Your task to perform on an android device: View the shopping cart on target.com. Add "dell xps" to the cart on target.com Image 0: 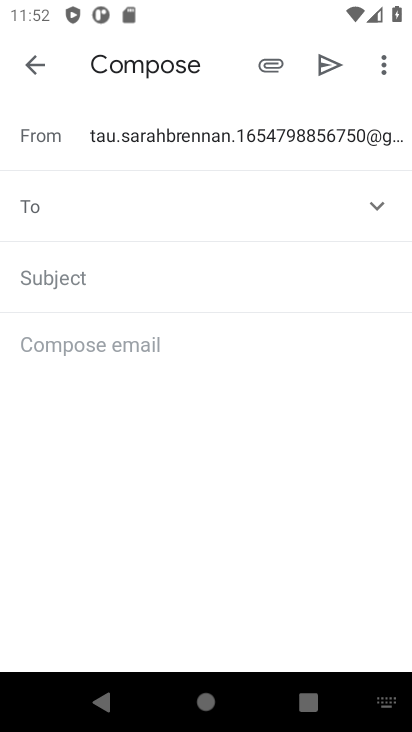
Step 0: press home button
Your task to perform on an android device: View the shopping cart on target.com. Add "dell xps" to the cart on target.com Image 1: 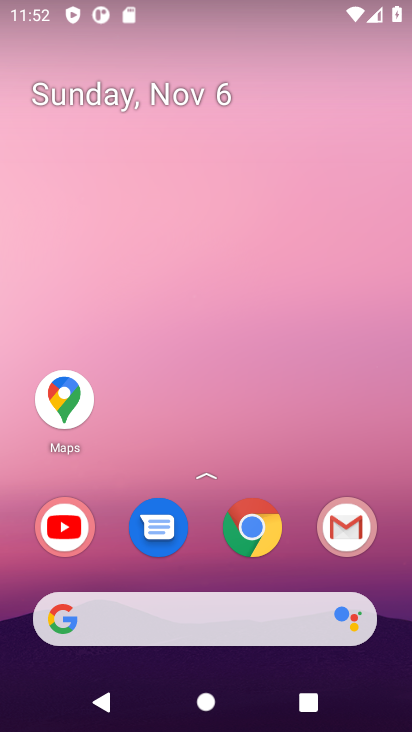
Step 1: drag from (233, 631) to (311, 47)
Your task to perform on an android device: View the shopping cart on target.com. Add "dell xps" to the cart on target.com Image 2: 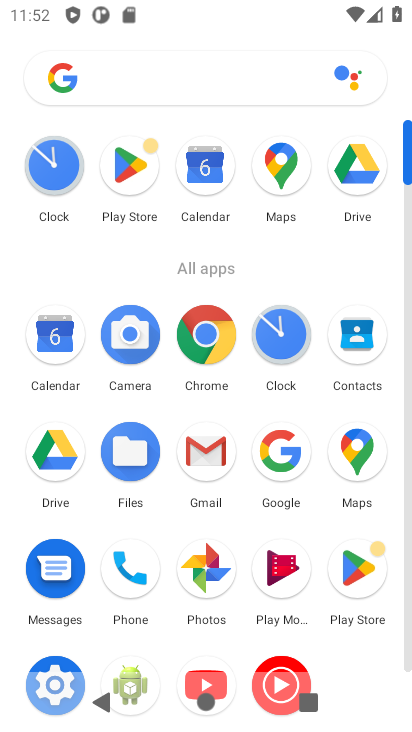
Step 2: click (219, 343)
Your task to perform on an android device: View the shopping cart on target.com. Add "dell xps" to the cart on target.com Image 3: 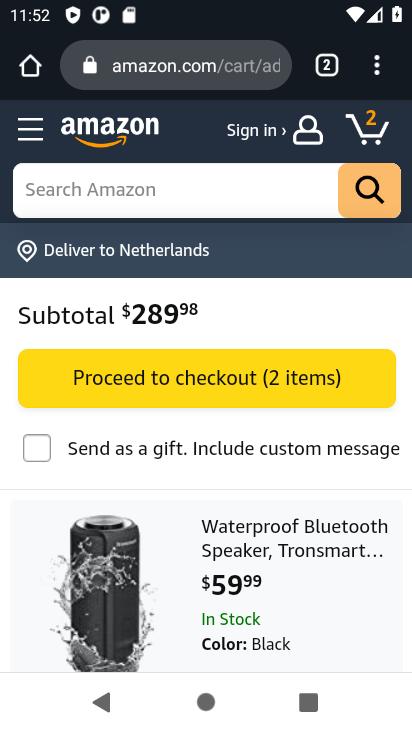
Step 3: click (194, 62)
Your task to perform on an android device: View the shopping cart on target.com. Add "dell xps" to the cart on target.com Image 4: 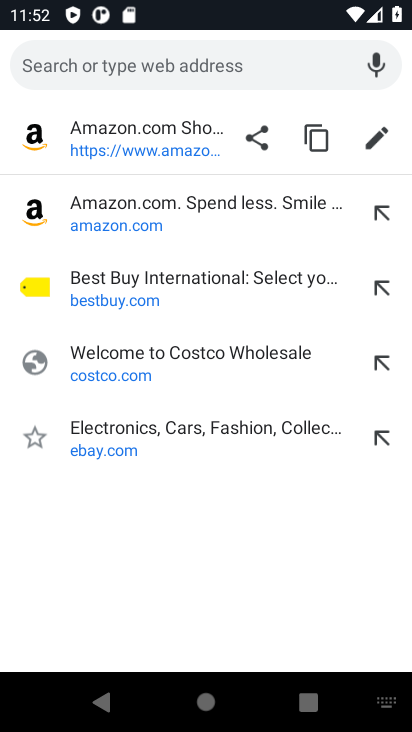
Step 4: type "target.com"
Your task to perform on an android device: View the shopping cart on target.com. Add "dell xps" to the cart on target.com Image 5: 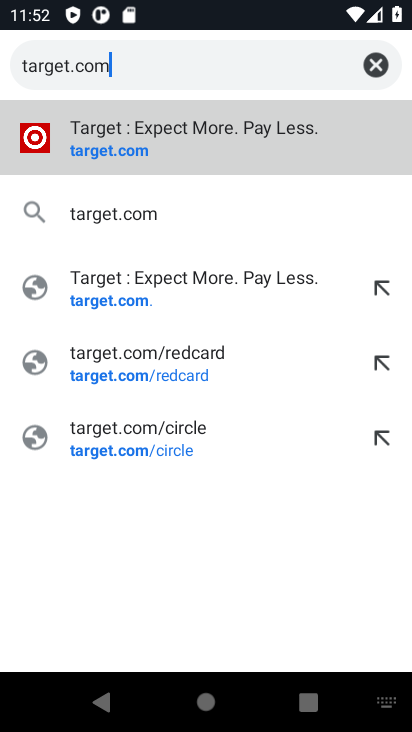
Step 5: press enter
Your task to perform on an android device: View the shopping cart on target.com. Add "dell xps" to the cart on target.com Image 6: 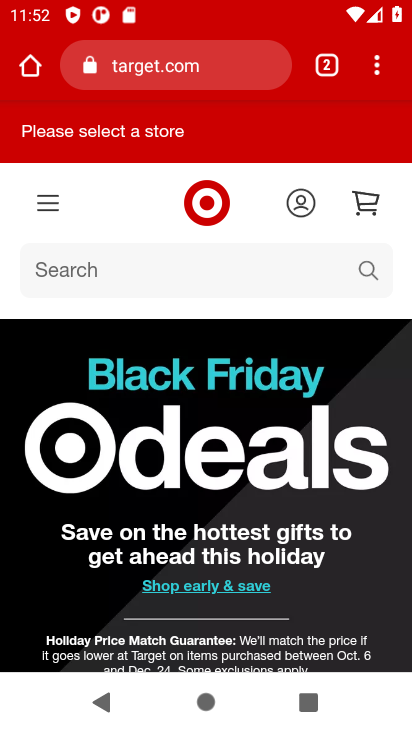
Step 6: click (162, 275)
Your task to perform on an android device: View the shopping cart on target.com. Add "dell xps" to the cart on target.com Image 7: 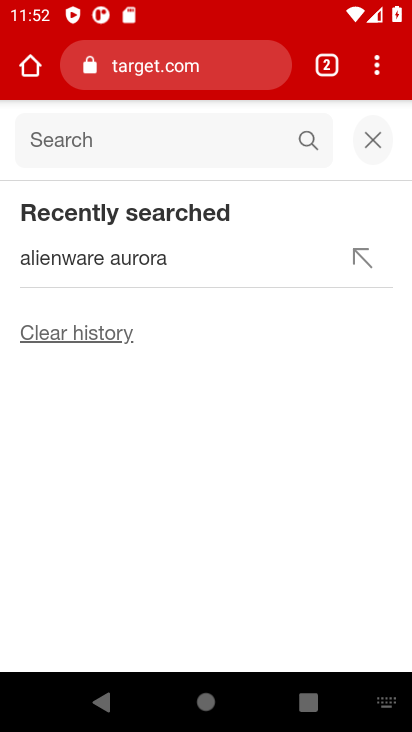
Step 7: type "dell xps"
Your task to perform on an android device: View the shopping cart on target.com. Add "dell xps" to the cart on target.com Image 8: 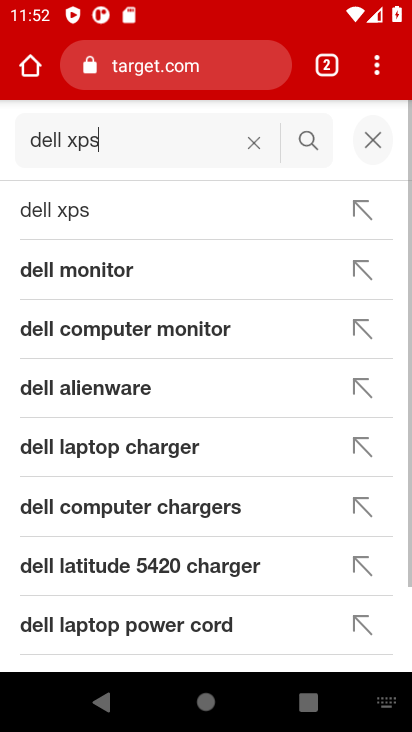
Step 8: press enter
Your task to perform on an android device: View the shopping cart on target.com. Add "dell xps" to the cart on target.com Image 9: 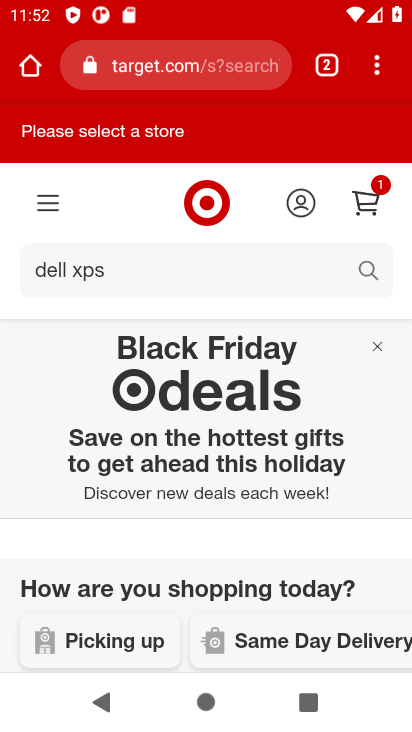
Step 9: drag from (160, 594) to (237, 276)
Your task to perform on an android device: View the shopping cart on target.com. Add "dell xps" to the cart on target.com Image 10: 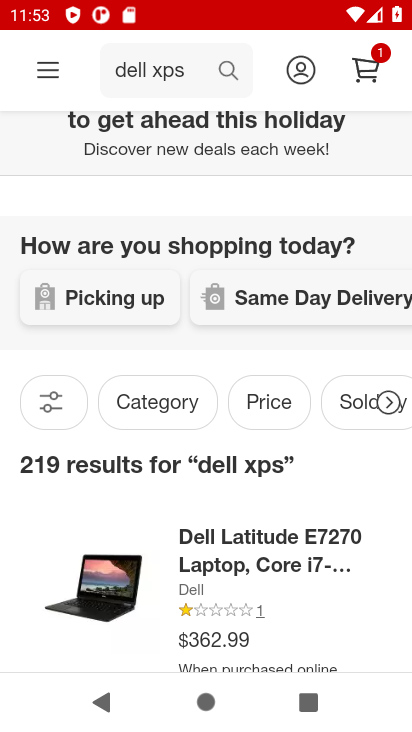
Step 10: drag from (195, 612) to (255, 317)
Your task to perform on an android device: View the shopping cart on target.com. Add "dell xps" to the cart on target.com Image 11: 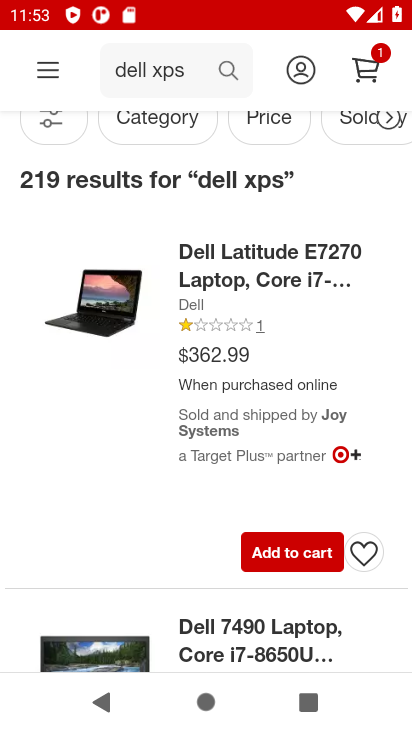
Step 11: click (284, 548)
Your task to perform on an android device: View the shopping cart on target.com. Add "dell xps" to the cart on target.com Image 12: 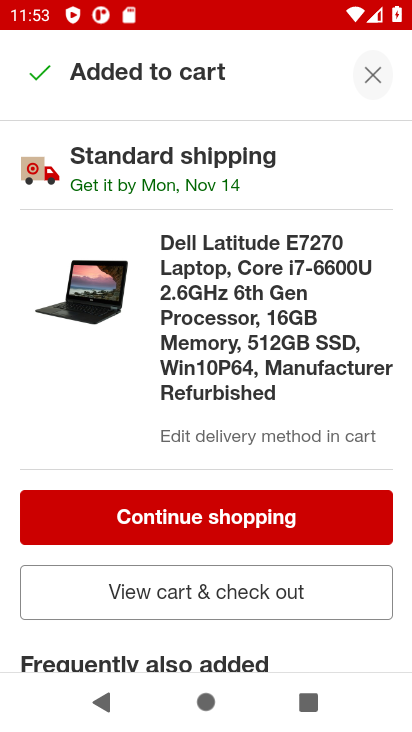
Step 12: click (250, 589)
Your task to perform on an android device: View the shopping cart on target.com. Add "dell xps" to the cart on target.com Image 13: 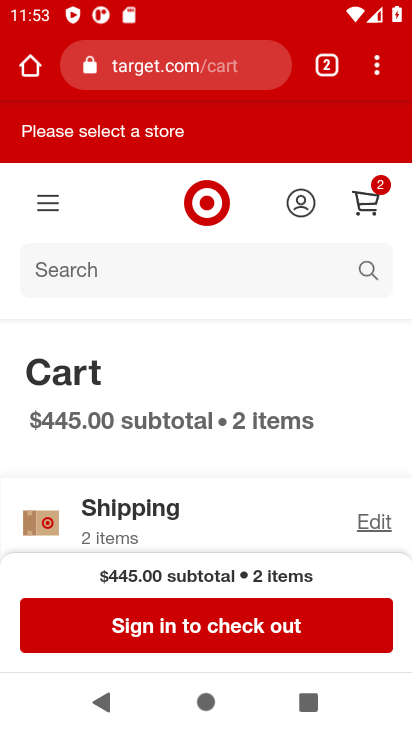
Step 13: task complete